Your task to perform on an android device: see tabs open on other devices in the chrome app Image 0: 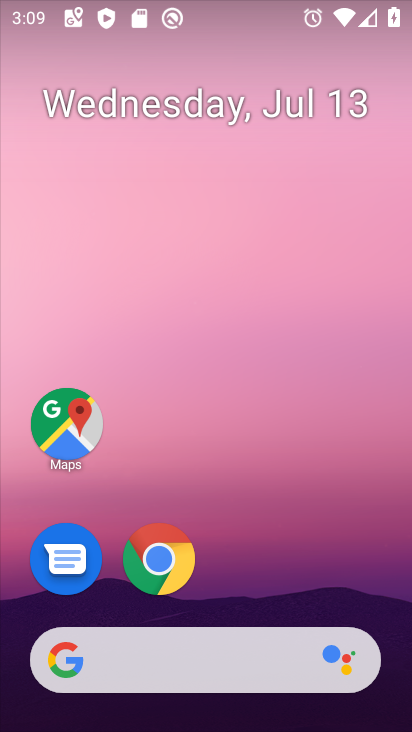
Step 0: drag from (363, 589) to (392, 94)
Your task to perform on an android device: see tabs open on other devices in the chrome app Image 1: 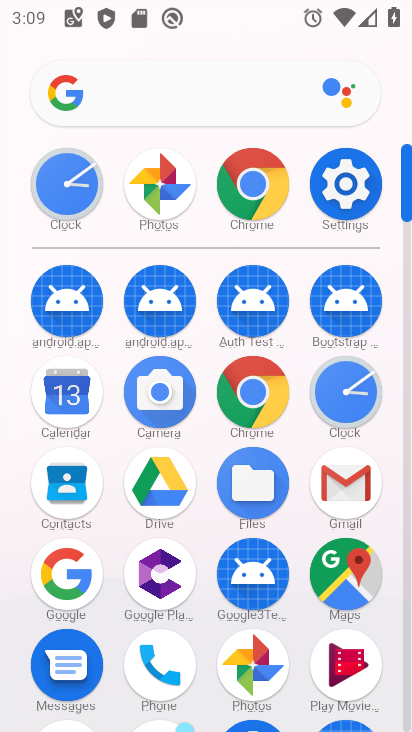
Step 1: click (249, 398)
Your task to perform on an android device: see tabs open on other devices in the chrome app Image 2: 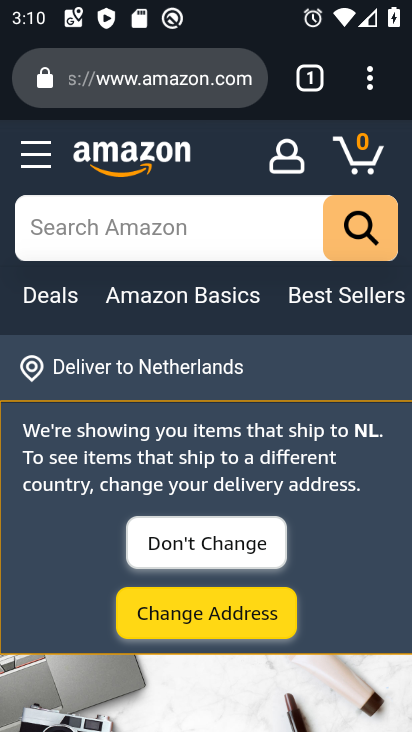
Step 2: click (366, 89)
Your task to perform on an android device: see tabs open on other devices in the chrome app Image 3: 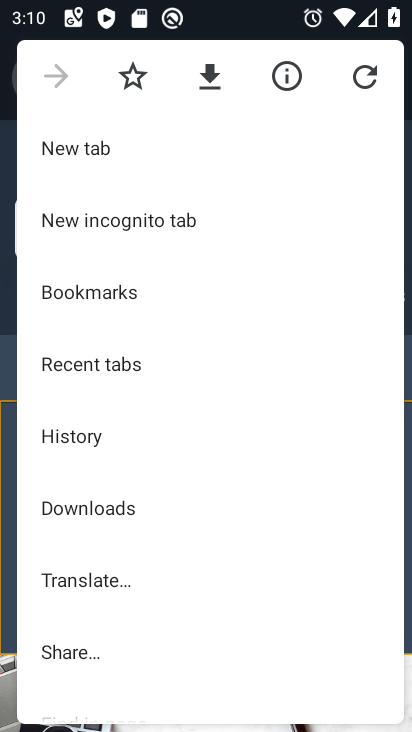
Step 3: drag from (277, 457) to (294, 280)
Your task to perform on an android device: see tabs open on other devices in the chrome app Image 4: 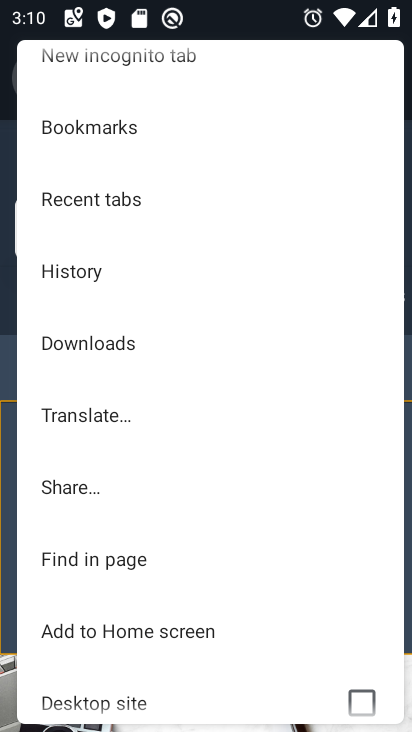
Step 4: click (152, 205)
Your task to perform on an android device: see tabs open on other devices in the chrome app Image 5: 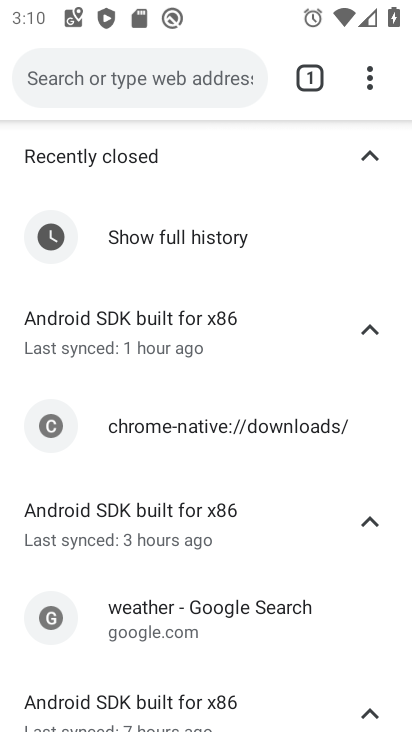
Step 5: click (311, 83)
Your task to perform on an android device: see tabs open on other devices in the chrome app Image 6: 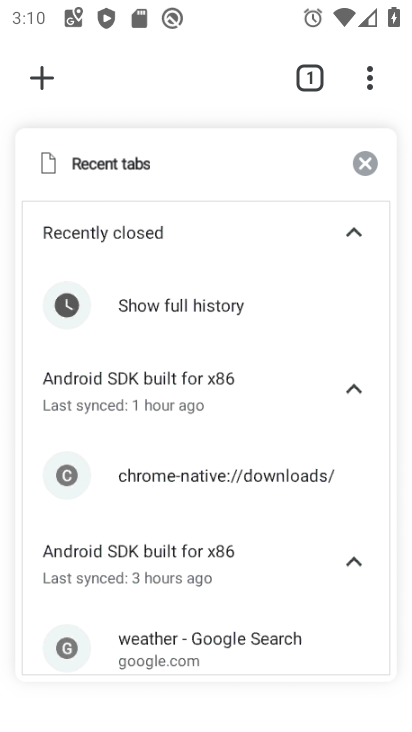
Step 6: task complete